Your task to perform on an android device: What's the weather going to be tomorrow? Image 0: 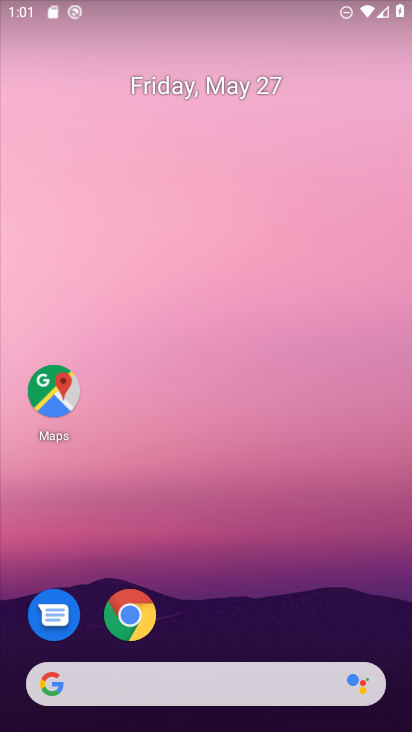
Step 0: drag from (229, 644) to (296, 184)
Your task to perform on an android device: What's the weather going to be tomorrow? Image 1: 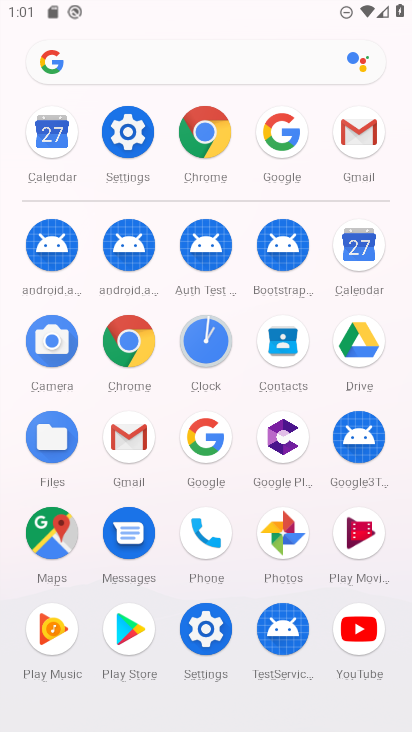
Step 1: click (196, 453)
Your task to perform on an android device: What's the weather going to be tomorrow? Image 2: 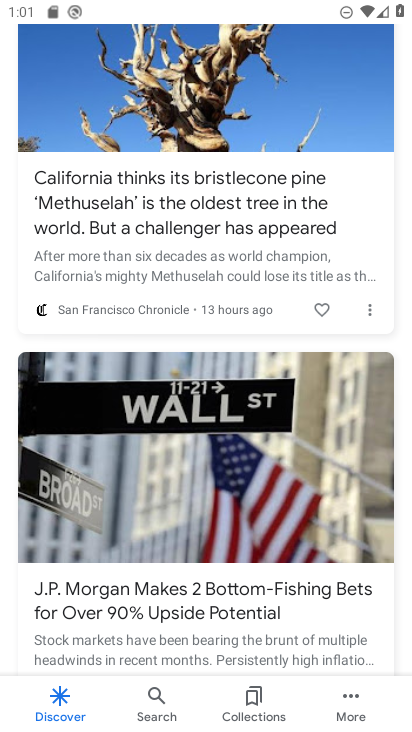
Step 2: drag from (208, 241) to (119, 727)
Your task to perform on an android device: What's the weather going to be tomorrow? Image 3: 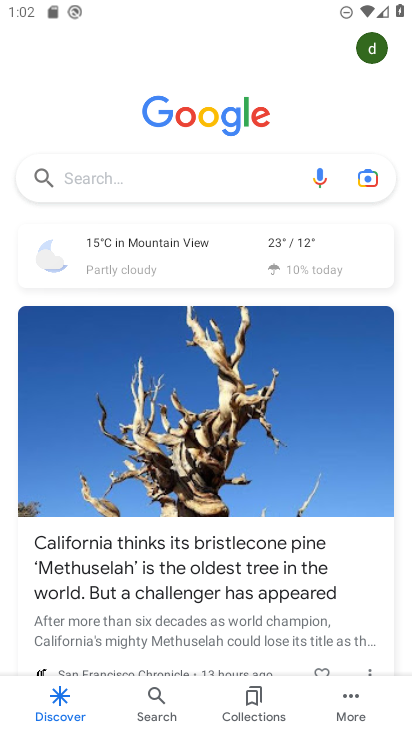
Step 3: click (152, 260)
Your task to perform on an android device: What's the weather going to be tomorrow? Image 4: 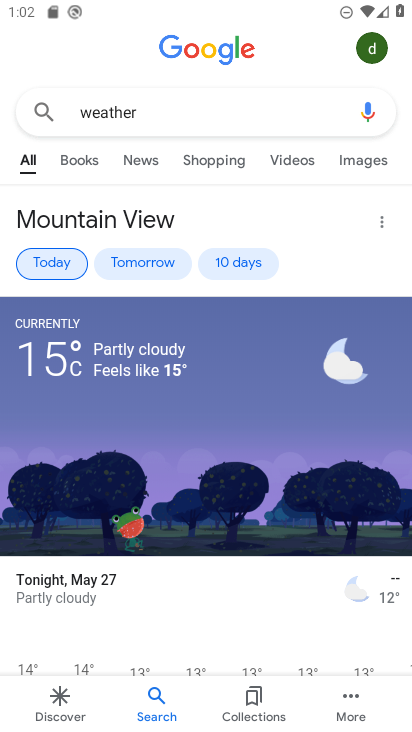
Step 4: click (144, 270)
Your task to perform on an android device: What's the weather going to be tomorrow? Image 5: 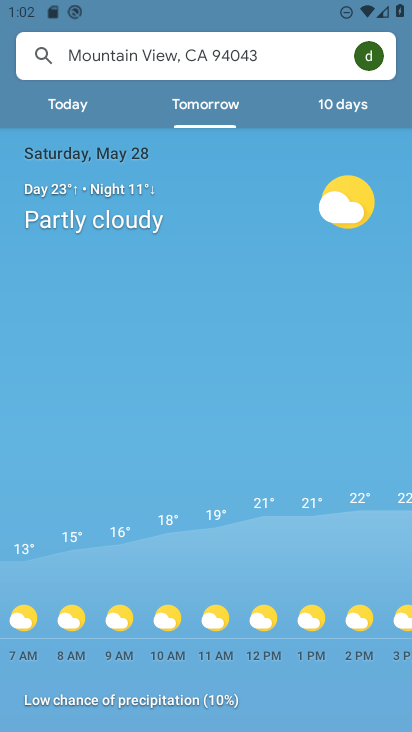
Step 5: task complete